Your task to perform on an android device: Open Yahoo.com Image 0: 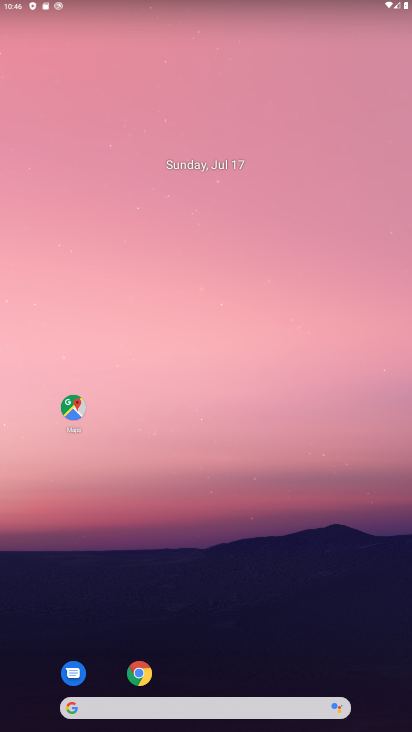
Step 0: click (140, 672)
Your task to perform on an android device: Open Yahoo.com Image 1: 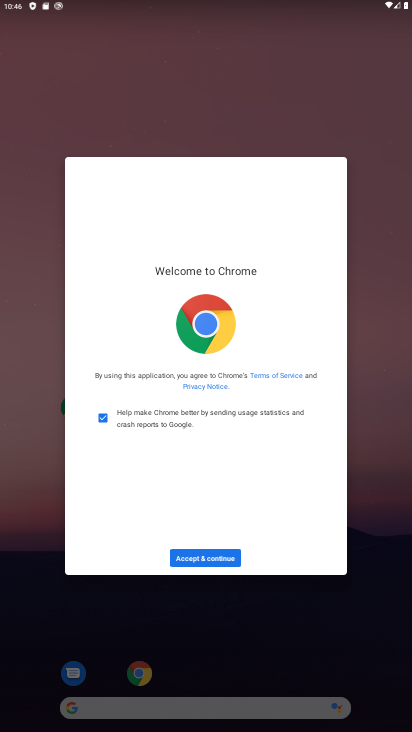
Step 1: click (219, 554)
Your task to perform on an android device: Open Yahoo.com Image 2: 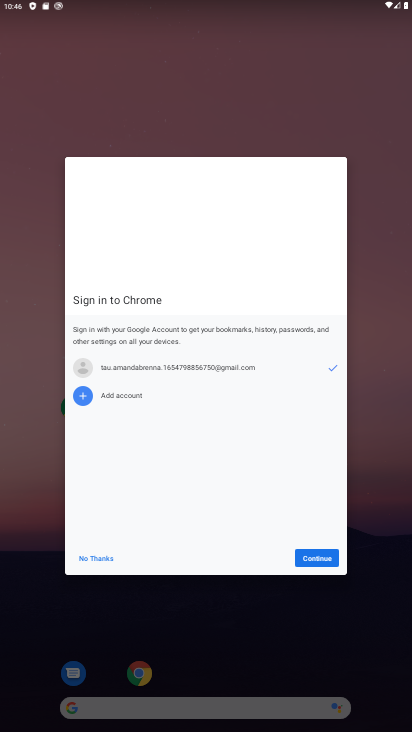
Step 2: click (323, 554)
Your task to perform on an android device: Open Yahoo.com Image 3: 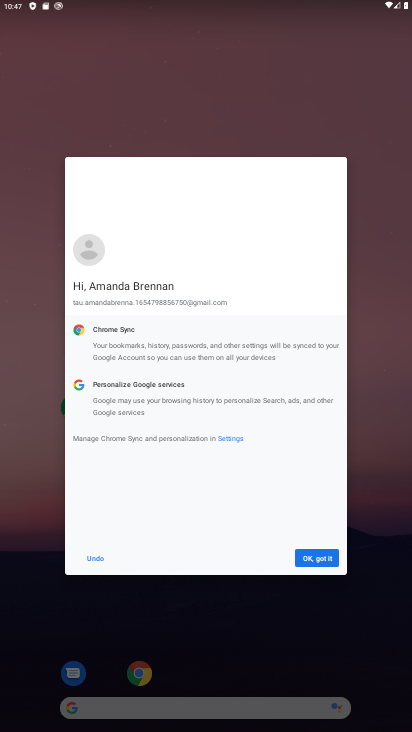
Step 3: click (315, 567)
Your task to perform on an android device: Open Yahoo.com Image 4: 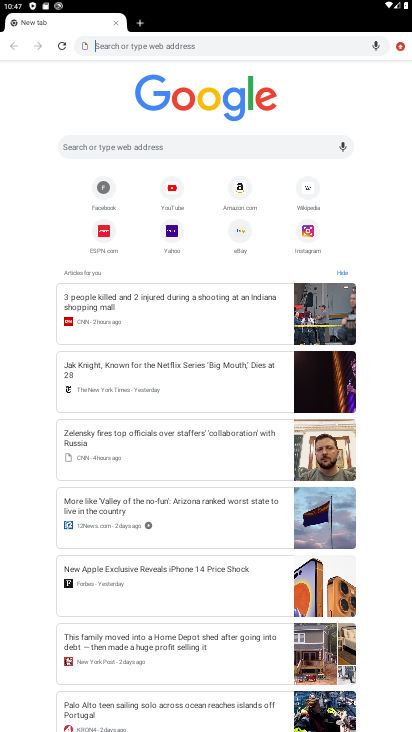
Step 4: click (171, 227)
Your task to perform on an android device: Open Yahoo.com Image 5: 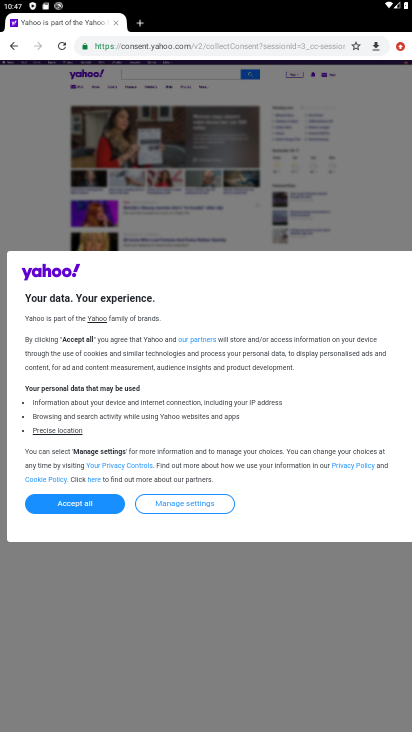
Step 5: click (75, 507)
Your task to perform on an android device: Open Yahoo.com Image 6: 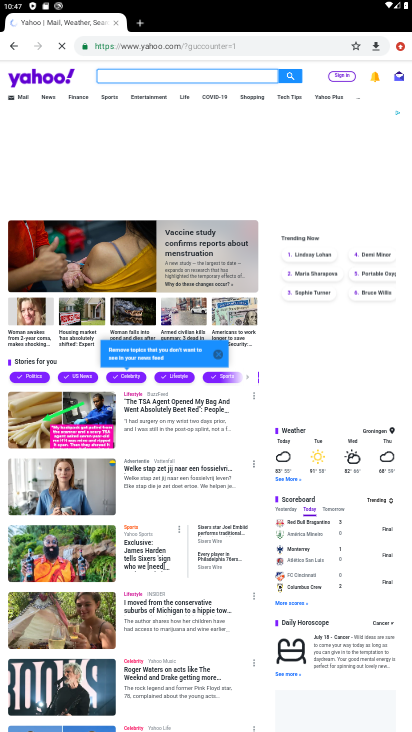
Step 6: task complete